Your task to perform on an android device: change notifications settings Image 0: 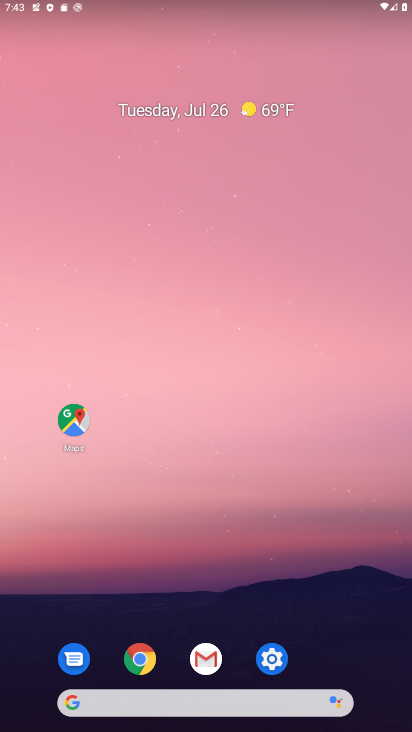
Step 0: click (151, 656)
Your task to perform on an android device: change notifications settings Image 1: 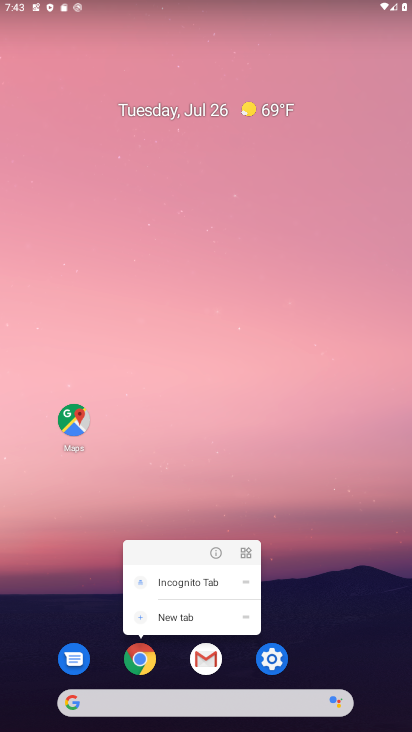
Step 1: click (142, 650)
Your task to perform on an android device: change notifications settings Image 2: 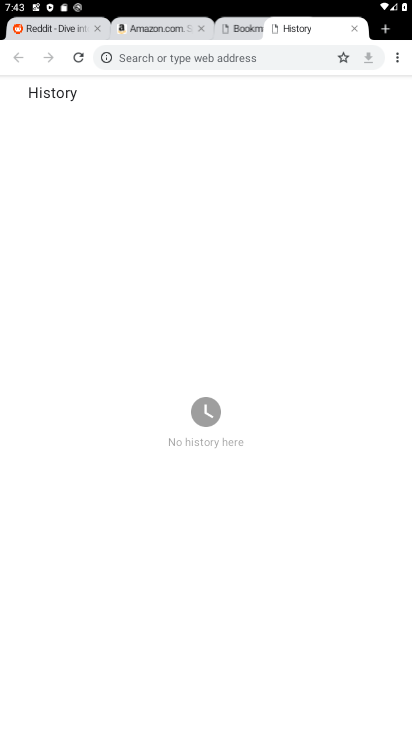
Step 2: click (384, 26)
Your task to perform on an android device: change notifications settings Image 3: 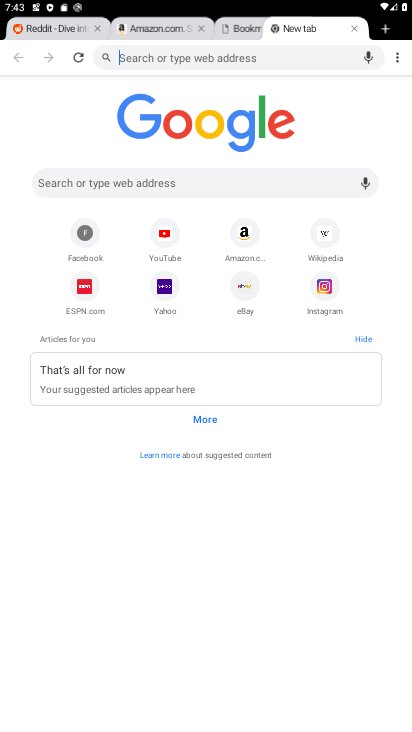
Step 3: click (400, 57)
Your task to perform on an android device: change notifications settings Image 4: 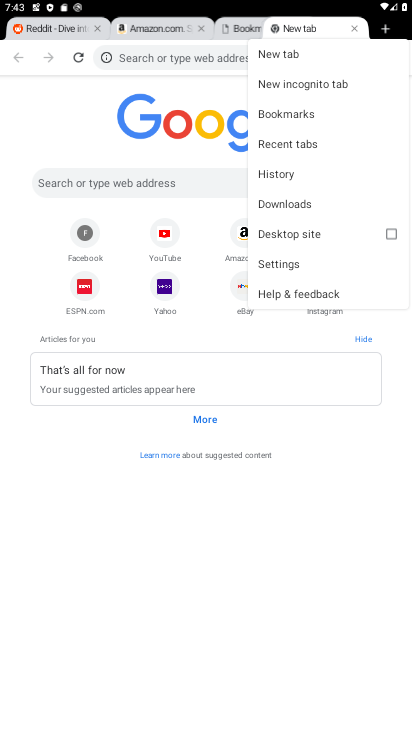
Step 4: click (278, 260)
Your task to perform on an android device: change notifications settings Image 5: 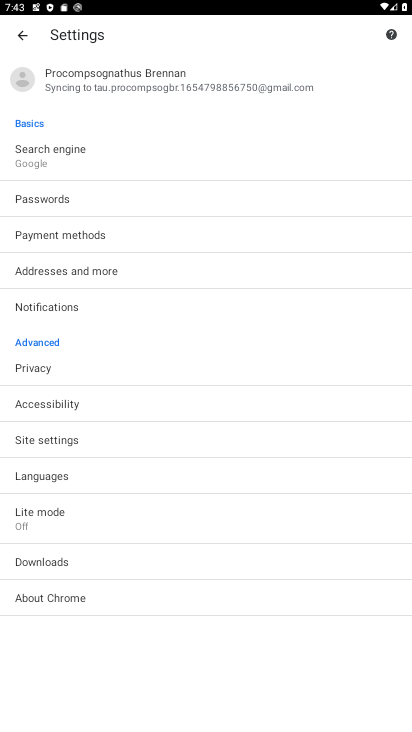
Step 5: click (47, 434)
Your task to perform on an android device: change notifications settings Image 6: 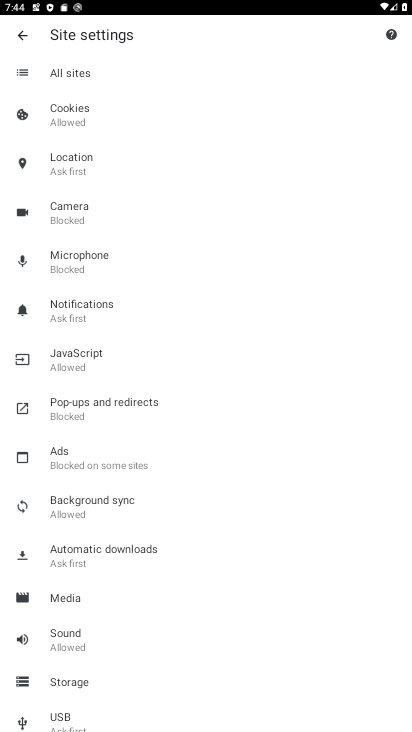
Step 6: click (87, 312)
Your task to perform on an android device: change notifications settings Image 7: 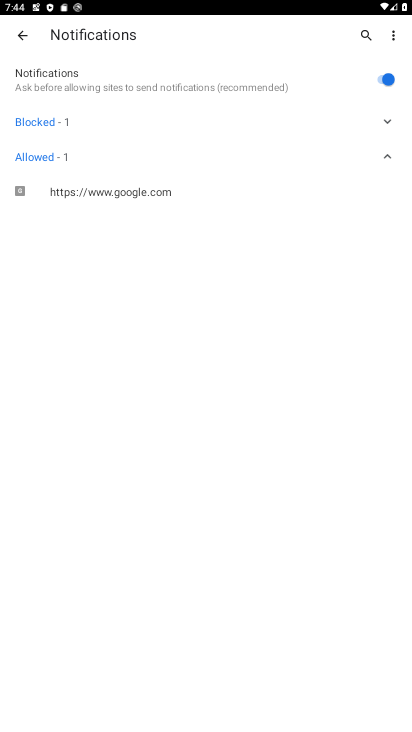
Step 7: click (377, 76)
Your task to perform on an android device: change notifications settings Image 8: 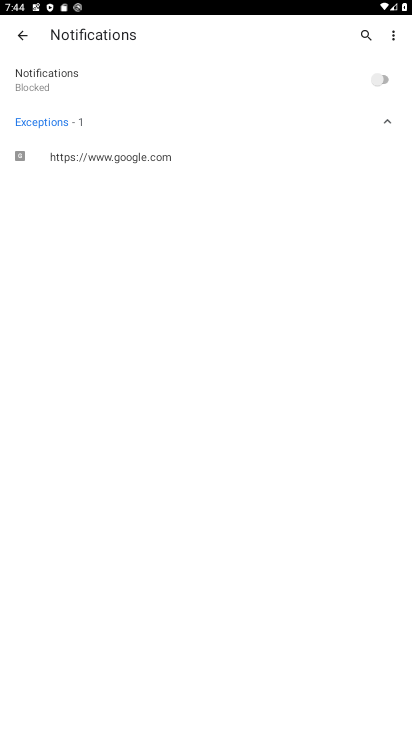
Step 8: task complete